Your task to perform on an android device: Go to Yahoo.com Image 0: 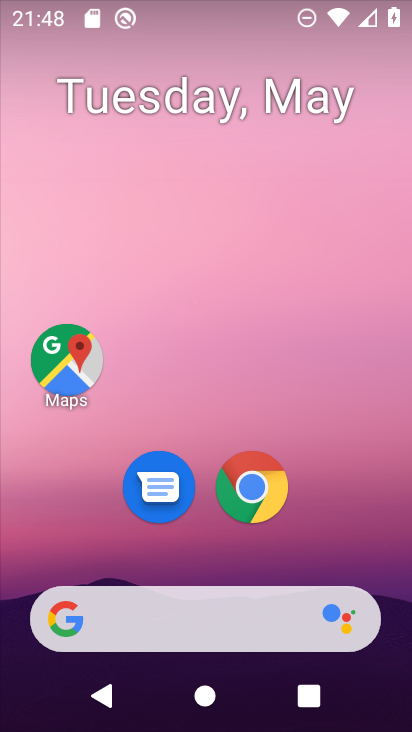
Step 0: press home button
Your task to perform on an android device: Go to Yahoo.com Image 1: 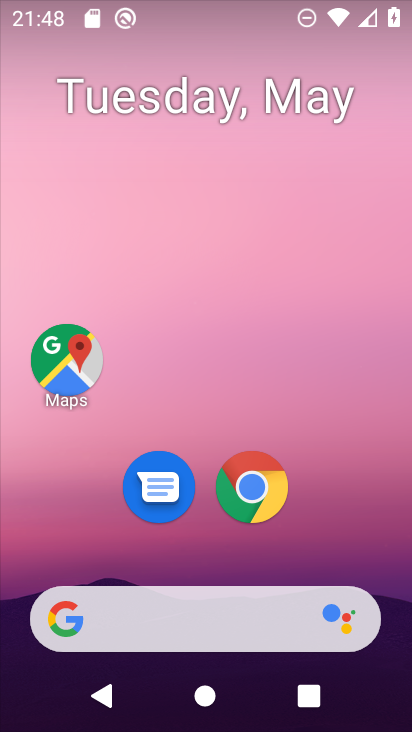
Step 1: click (258, 502)
Your task to perform on an android device: Go to Yahoo.com Image 2: 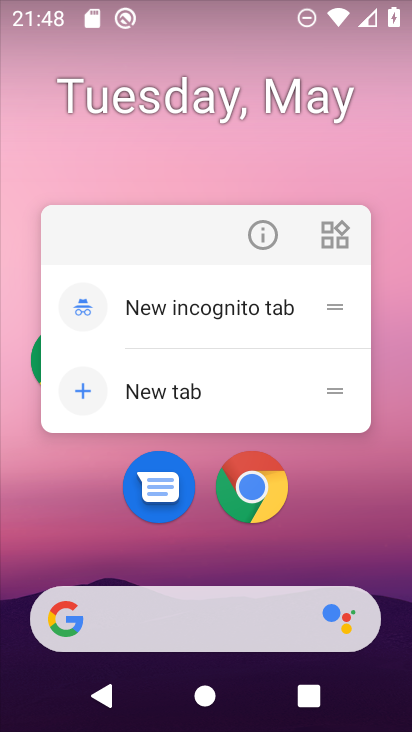
Step 2: click (251, 492)
Your task to perform on an android device: Go to Yahoo.com Image 3: 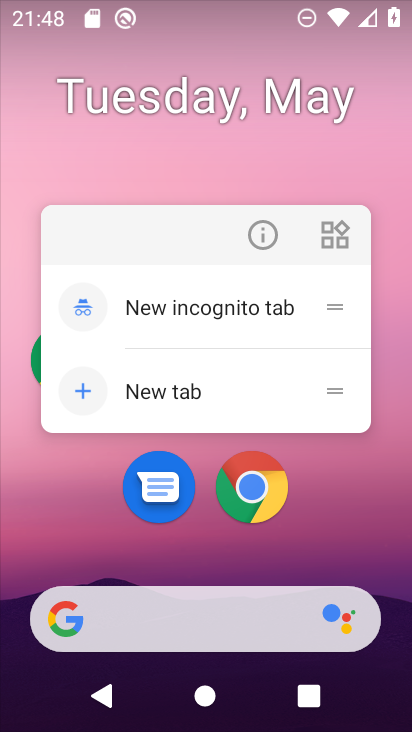
Step 3: click (246, 502)
Your task to perform on an android device: Go to Yahoo.com Image 4: 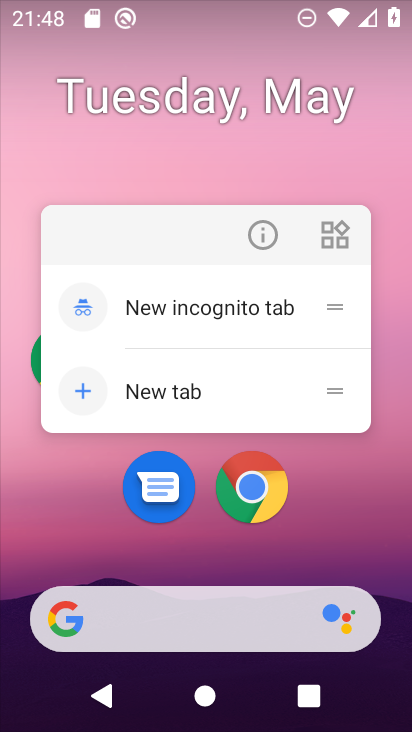
Step 4: click (258, 488)
Your task to perform on an android device: Go to Yahoo.com Image 5: 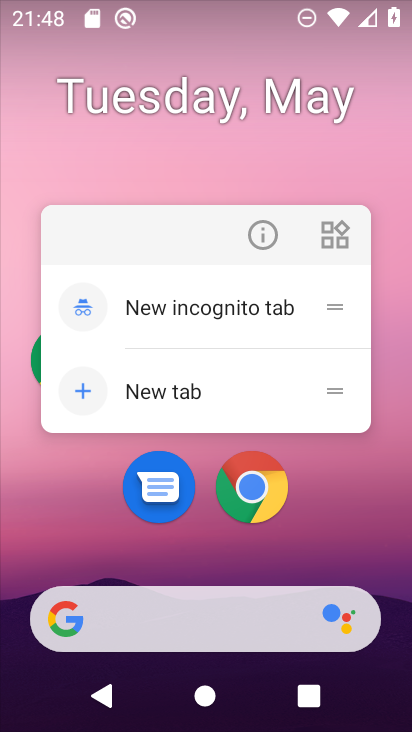
Step 5: click (250, 496)
Your task to perform on an android device: Go to Yahoo.com Image 6: 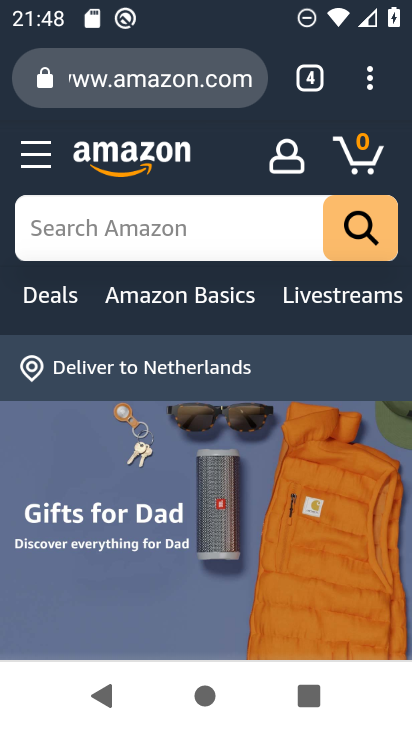
Step 6: drag from (364, 82) to (210, 154)
Your task to perform on an android device: Go to Yahoo.com Image 7: 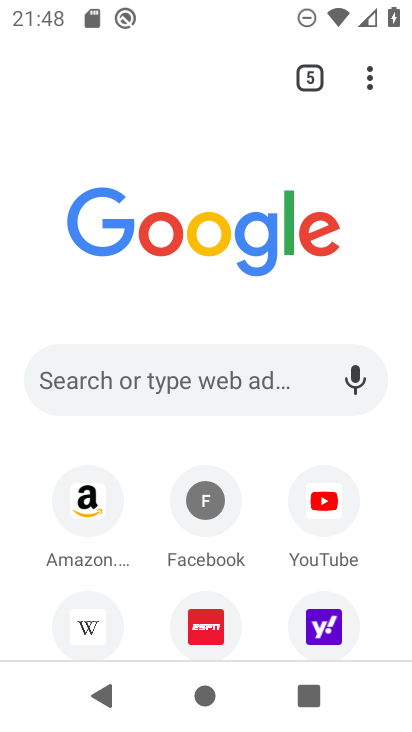
Step 7: drag from (277, 587) to (341, 287)
Your task to perform on an android device: Go to Yahoo.com Image 8: 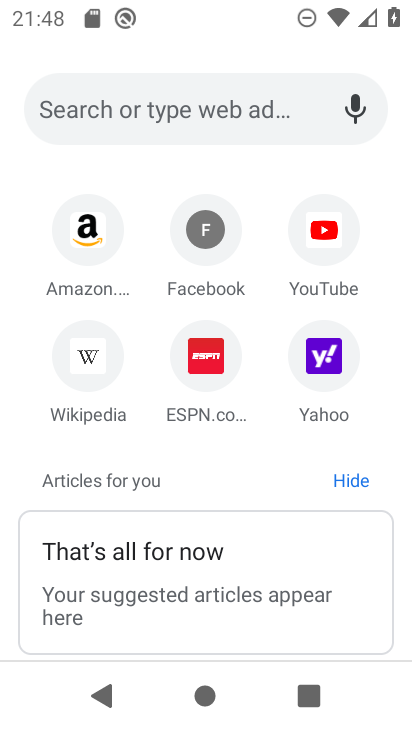
Step 8: click (324, 367)
Your task to perform on an android device: Go to Yahoo.com Image 9: 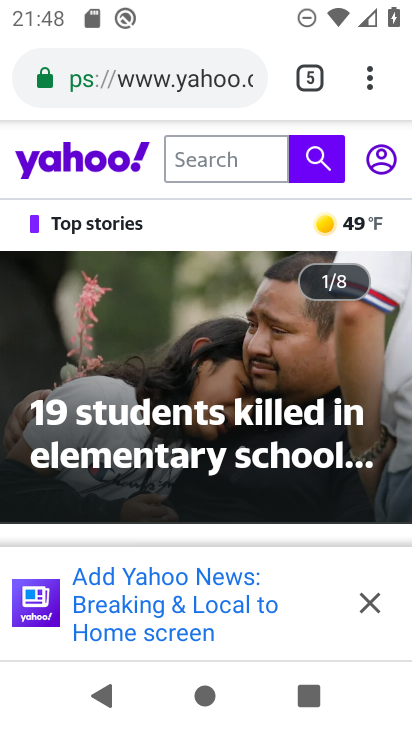
Step 9: task complete